Your task to perform on an android device: check android version Image 0: 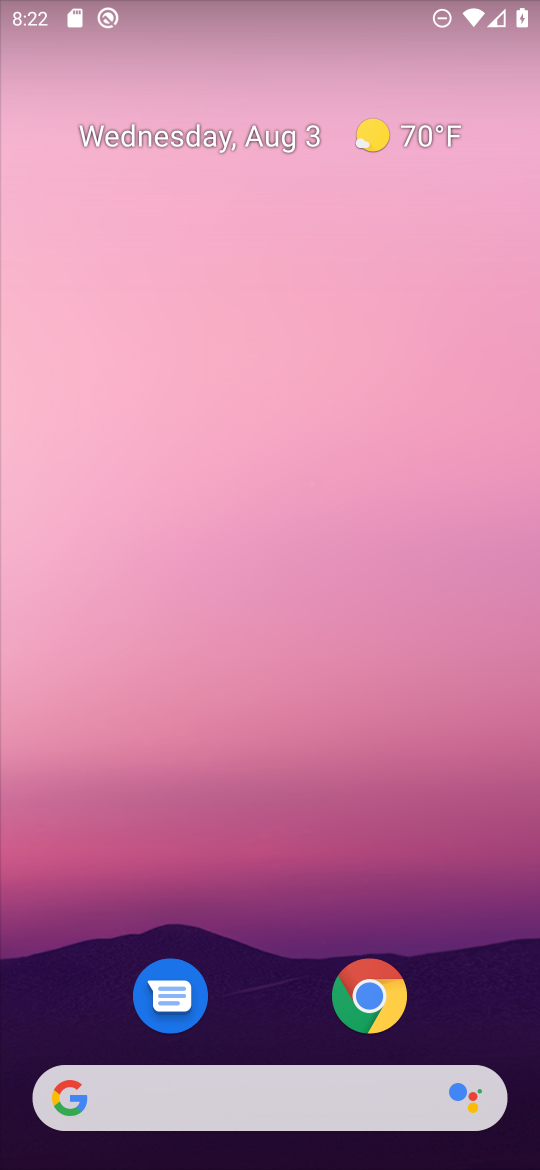
Step 0: drag from (278, 869) to (350, 0)
Your task to perform on an android device: check android version Image 1: 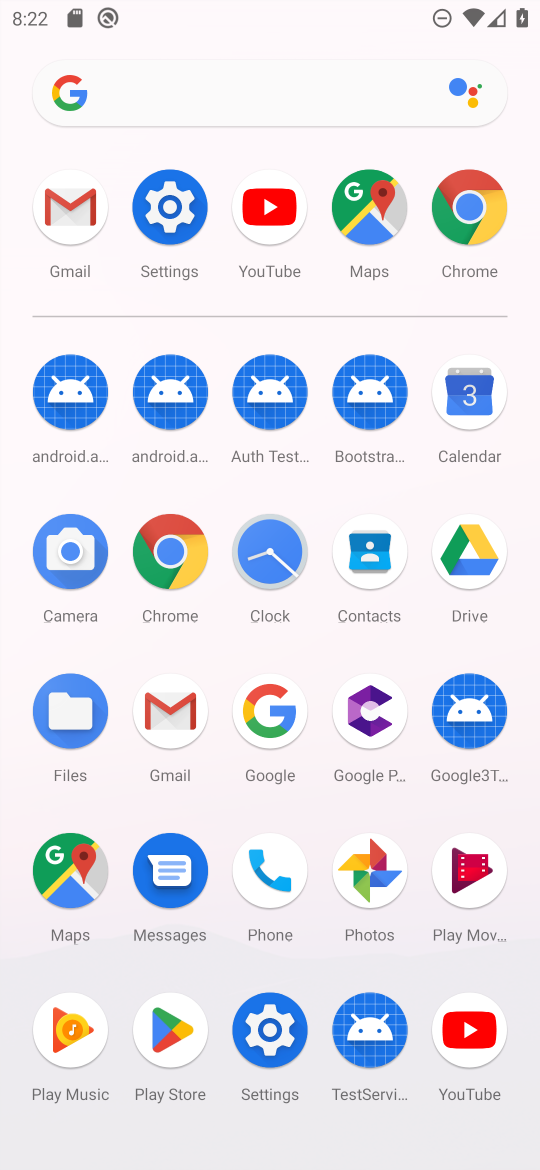
Step 1: click (176, 207)
Your task to perform on an android device: check android version Image 2: 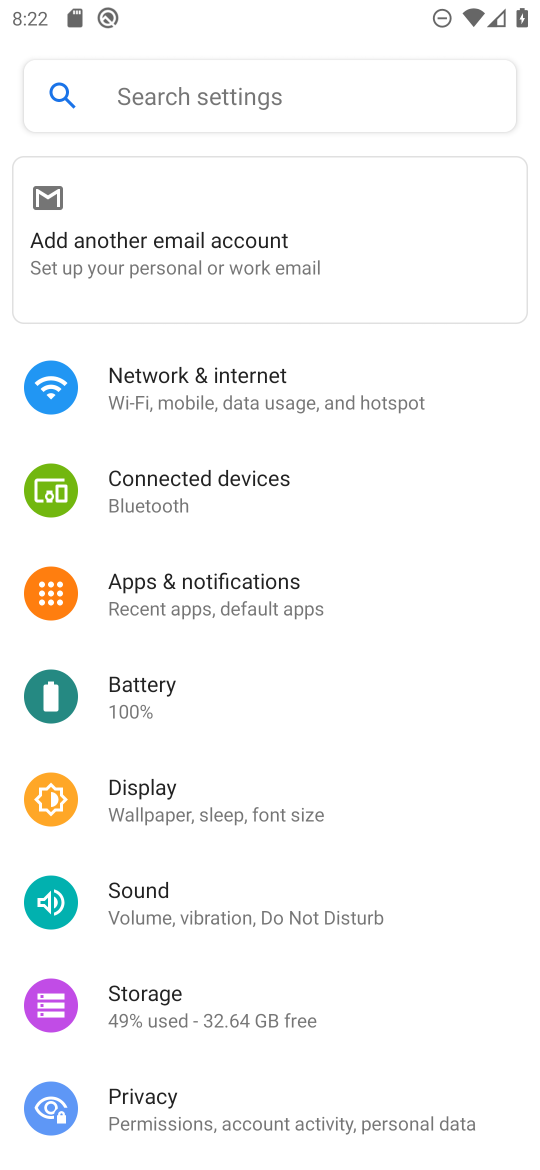
Step 2: drag from (255, 825) to (299, 23)
Your task to perform on an android device: check android version Image 3: 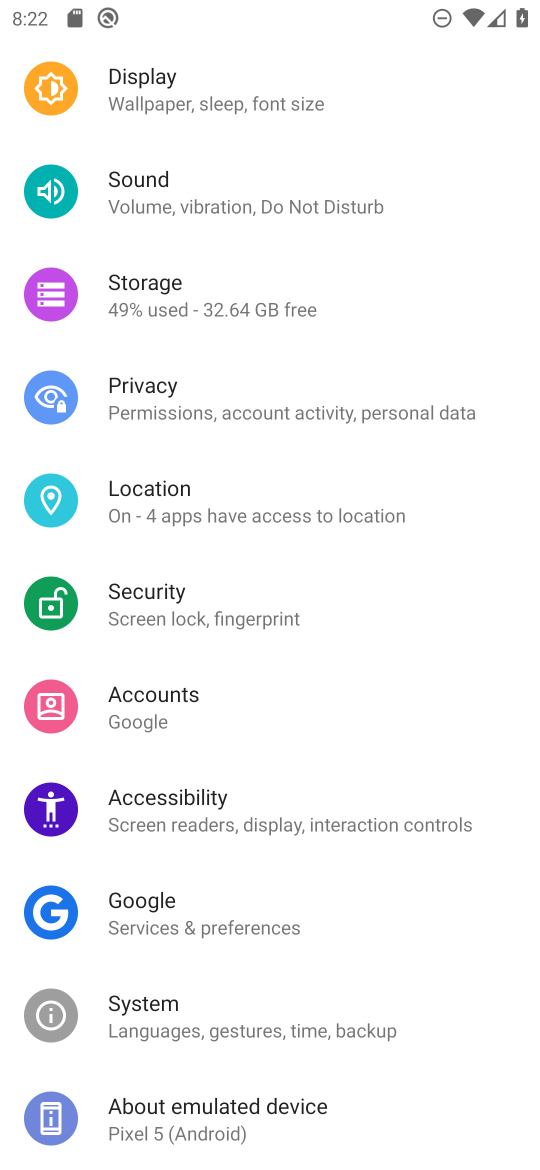
Step 3: drag from (347, 703) to (387, 340)
Your task to perform on an android device: check android version Image 4: 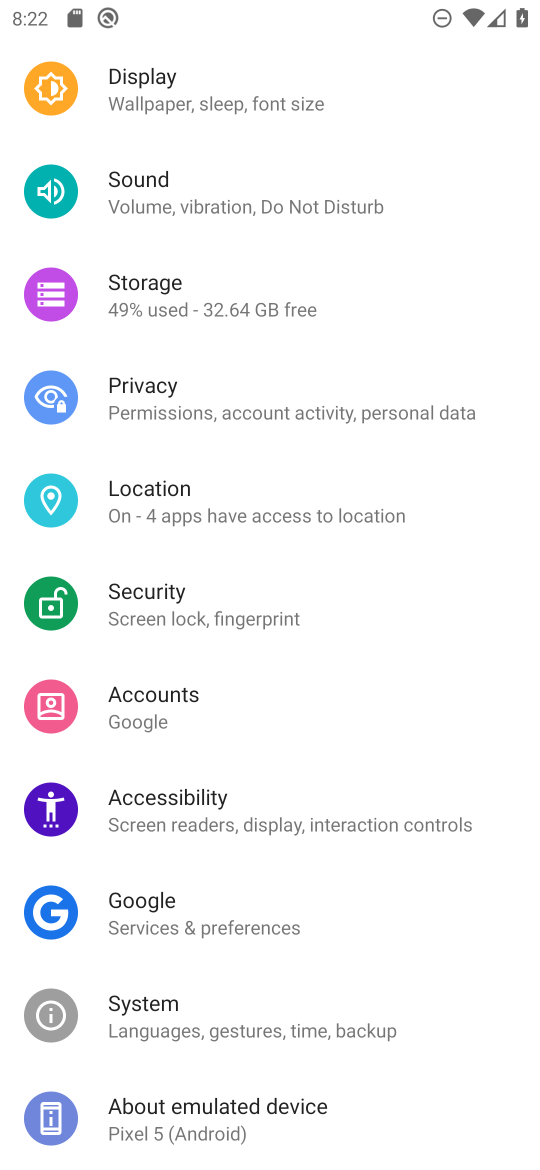
Step 4: click (243, 1106)
Your task to perform on an android device: check android version Image 5: 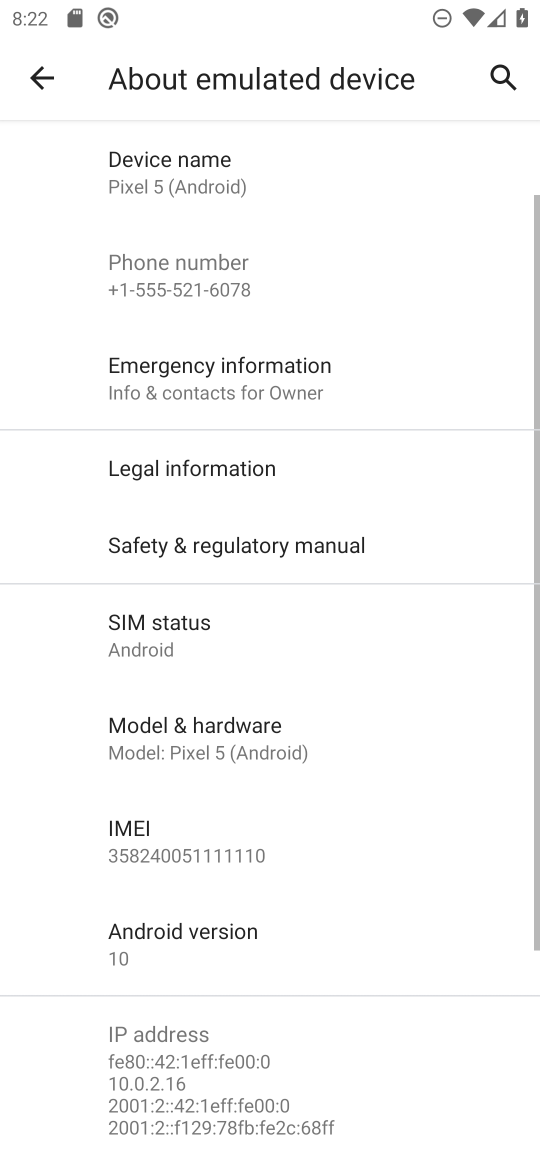
Step 5: click (233, 942)
Your task to perform on an android device: check android version Image 6: 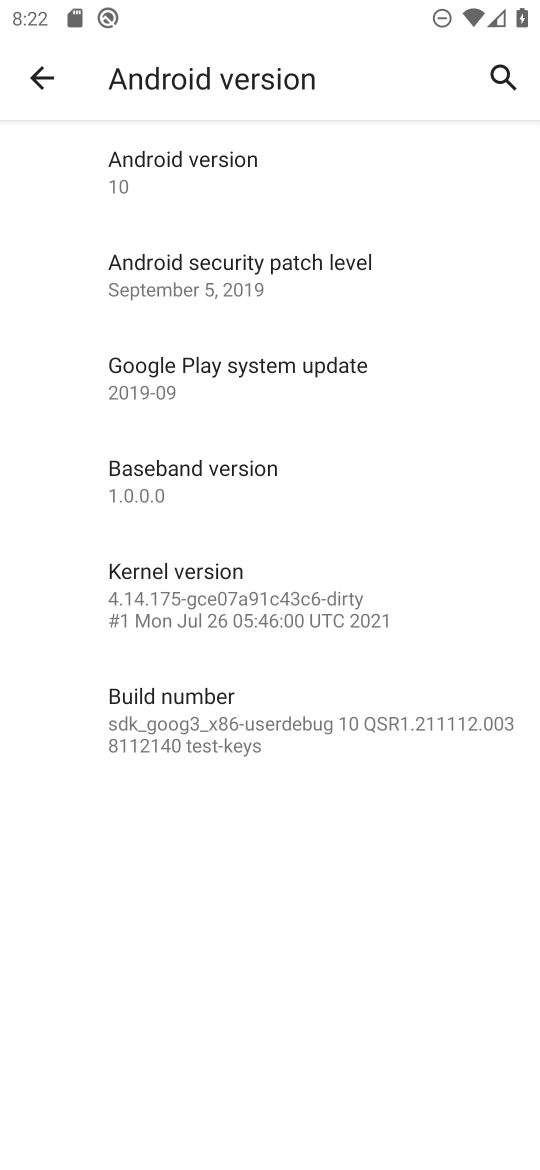
Step 6: task complete